Your task to perform on an android device: Open Reddit.com Image 0: 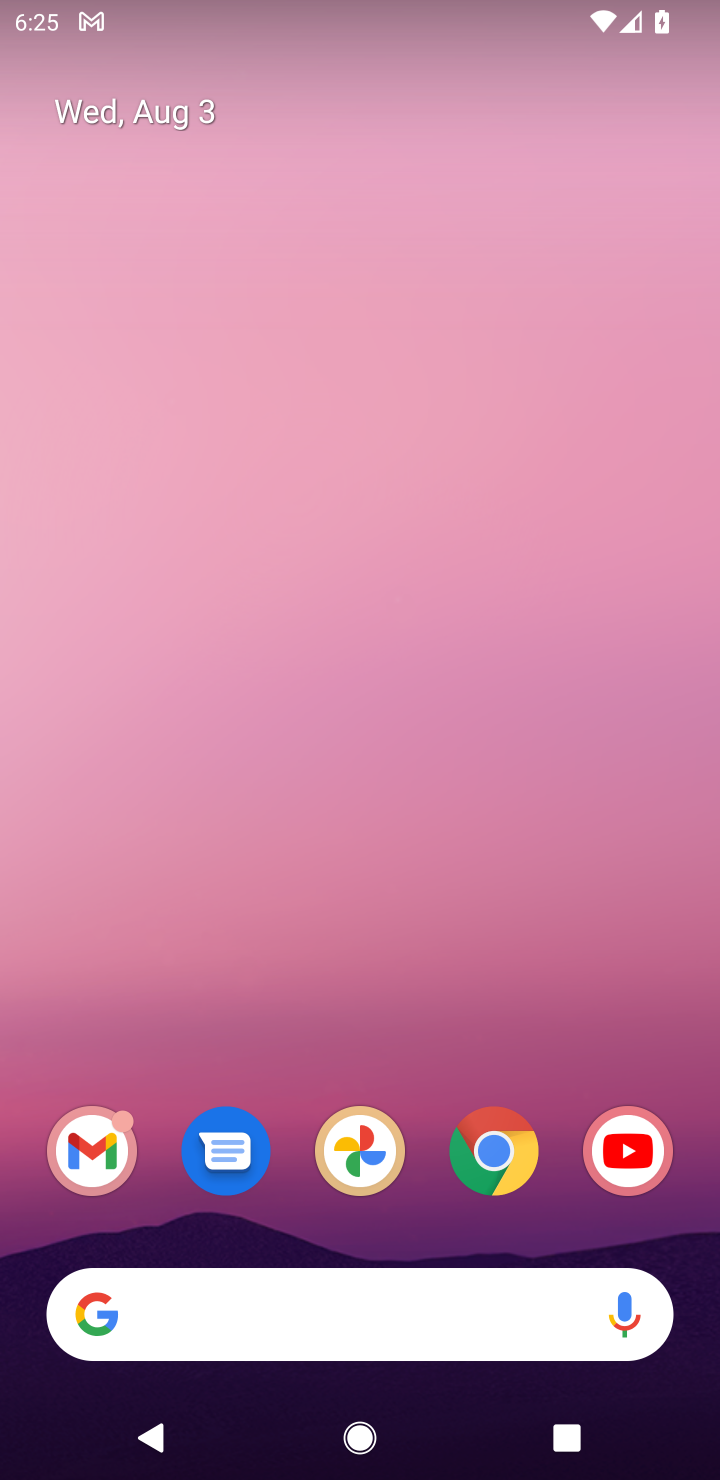
Step 0: click (519, 1166)
Your task to perform on an android device: Open Reddit.com Image 1: 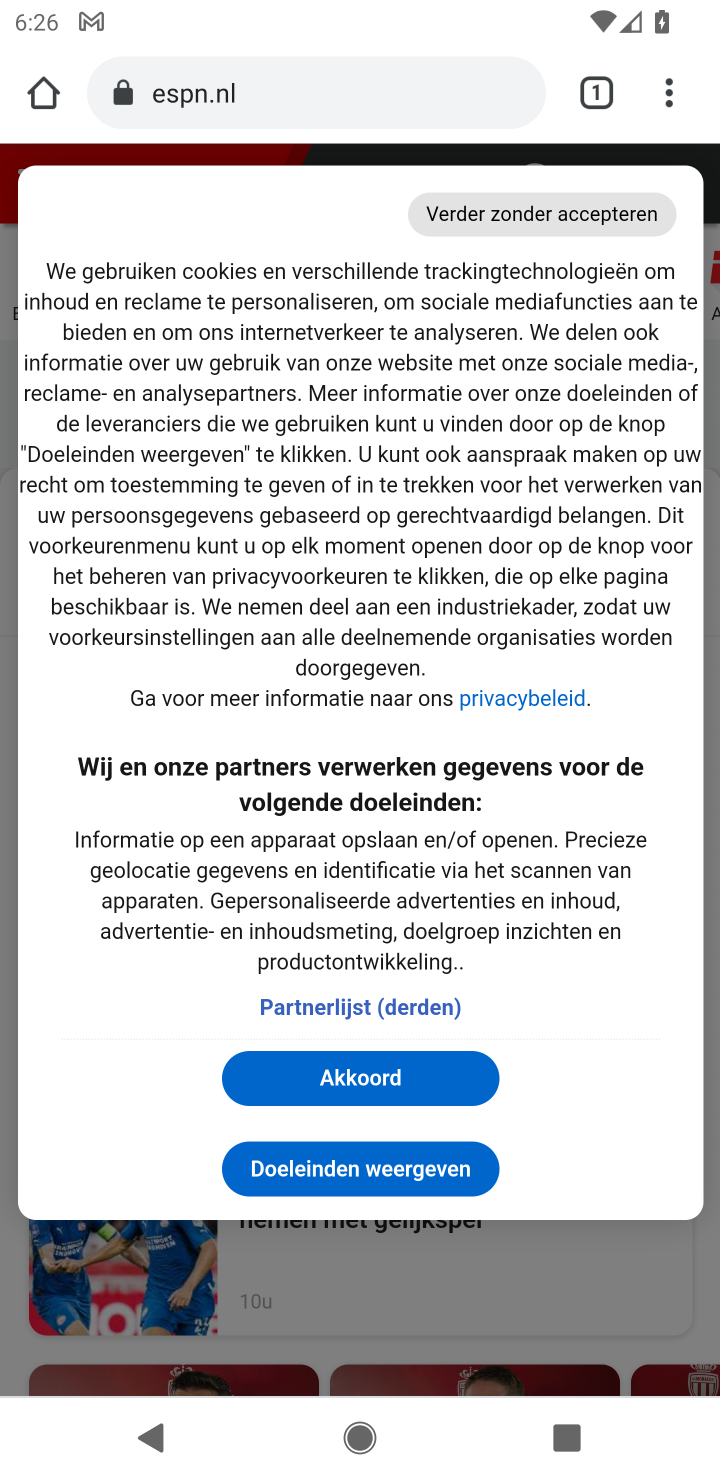
Step 1: click (572, 93)
Your task to perform on an android device: Open Reddit.com Image 2: 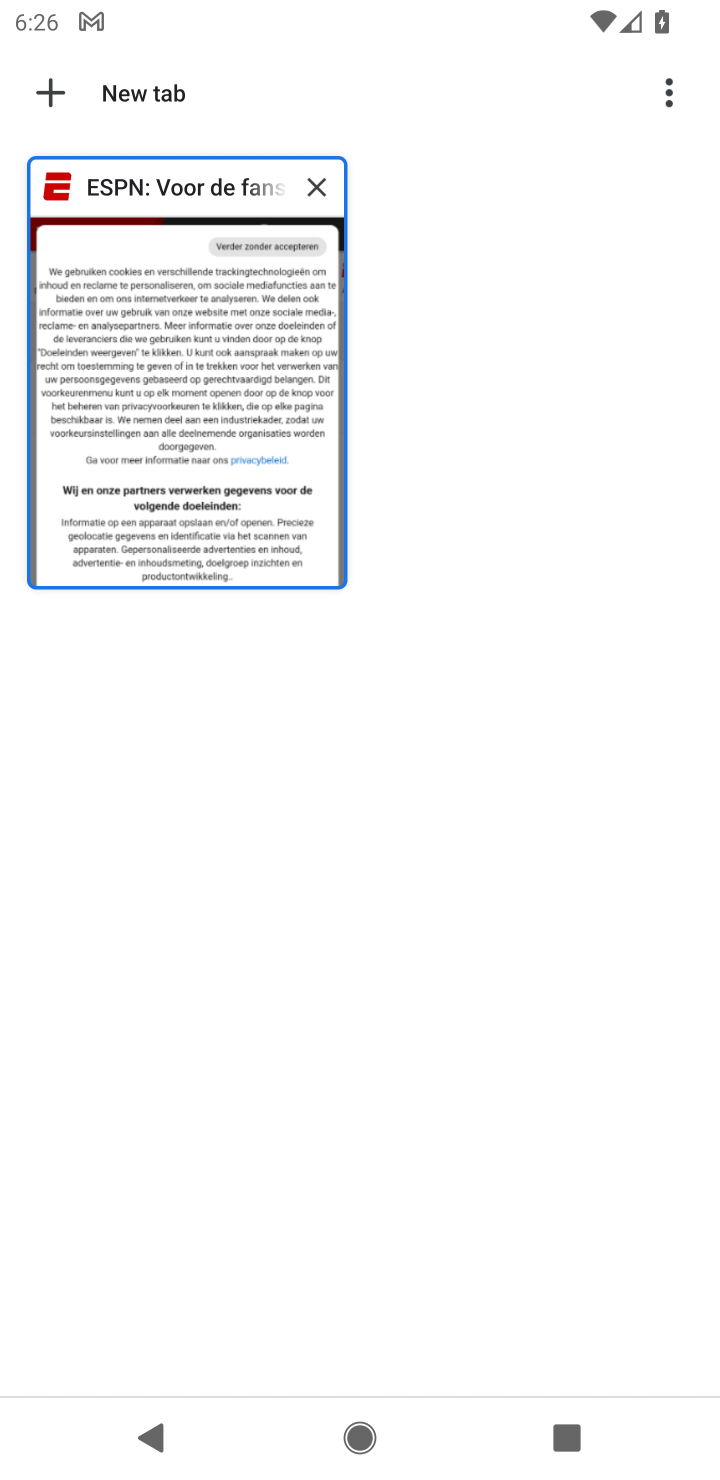
Step 2: click (313, 183)
Your task to perform on an android device: Open Reddit.com Image 3: 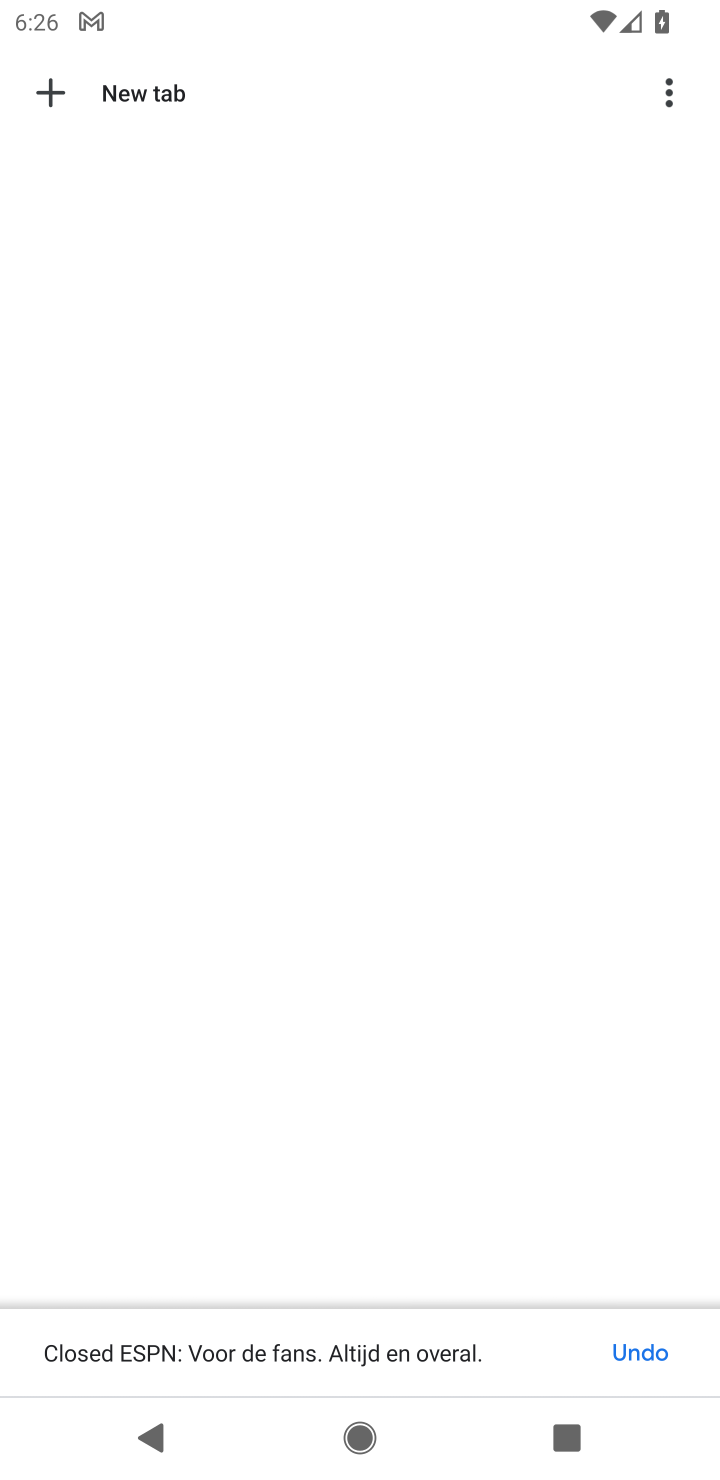
Step 3: click (100, 84)
Your task to perform on an android device: Open Reddit.com Image 4: 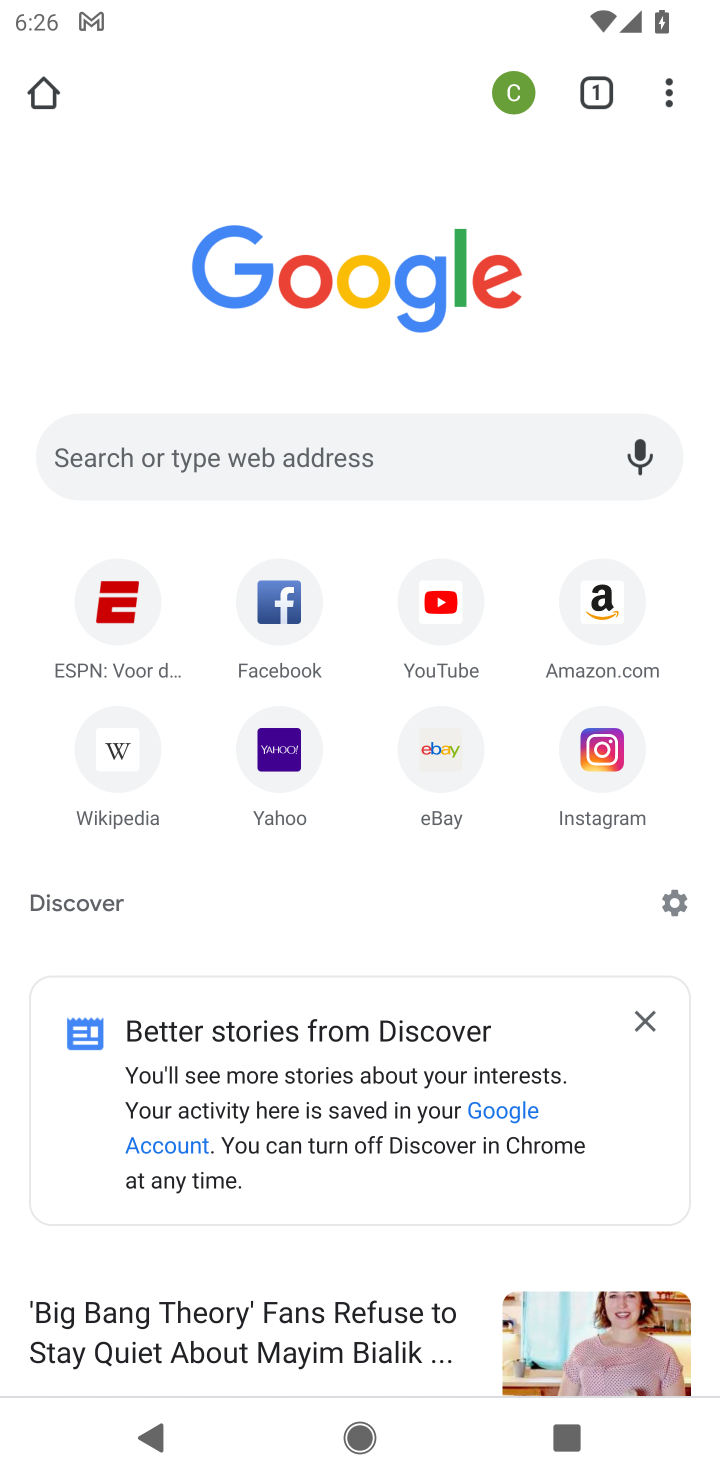
Step 4: click (431, 467)
Your task to perform on an android device: Open Reddit.com Image 5: 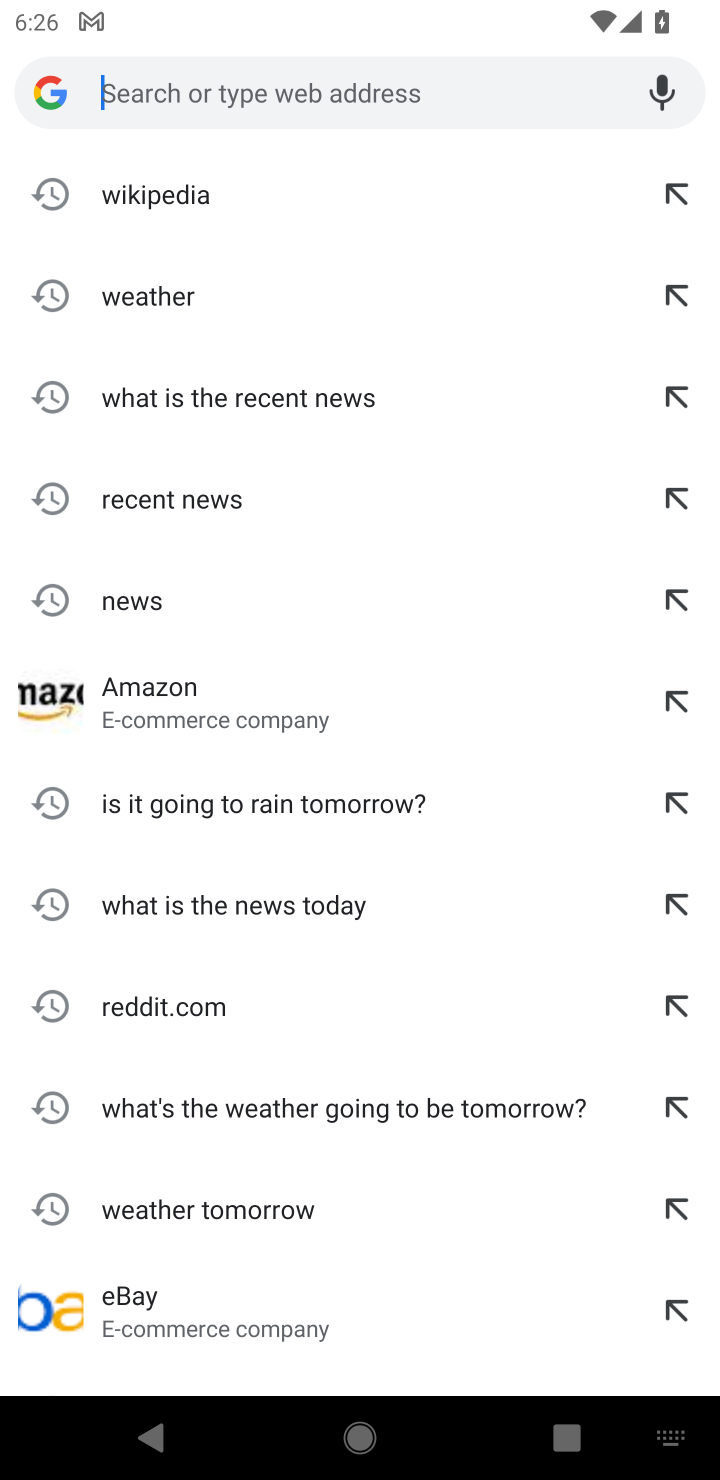
Step 5: type "reddit.com"
Your task to perform on an android device: Open Reddit.com Image 6: 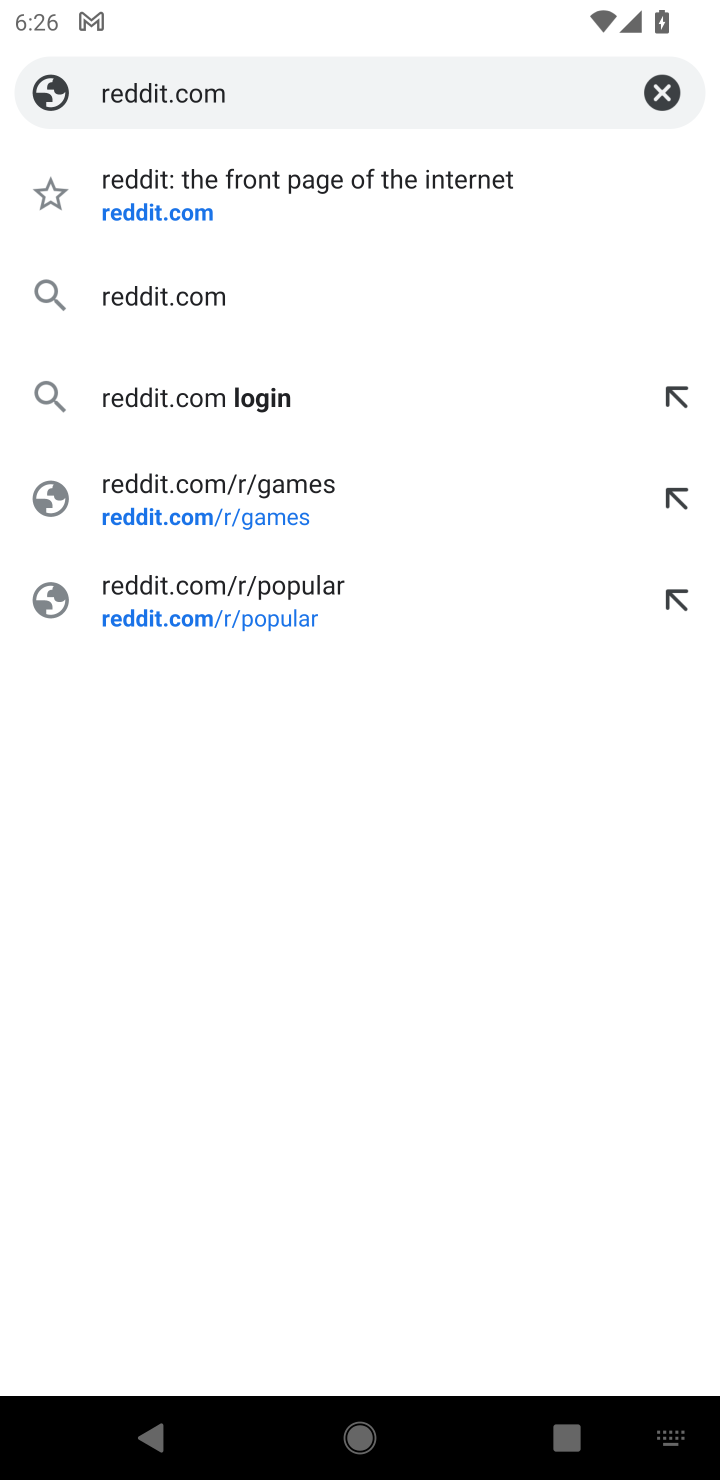
Step 6: click (259, 184)
Your task to perform on an android device: Open Reddit.com Image 7: 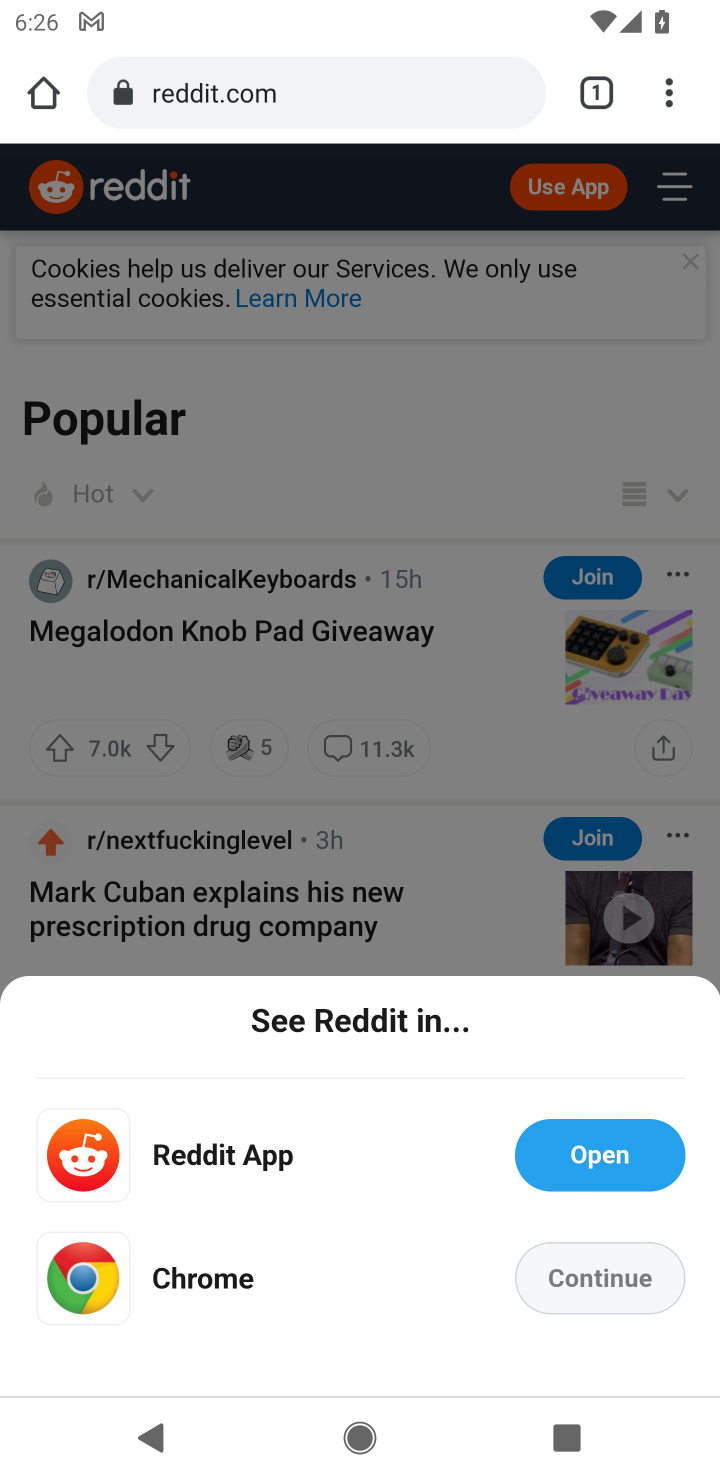
Step 7: click (630, 1297)
Your task to perform on an android device: Open Reddit.com Image 8: 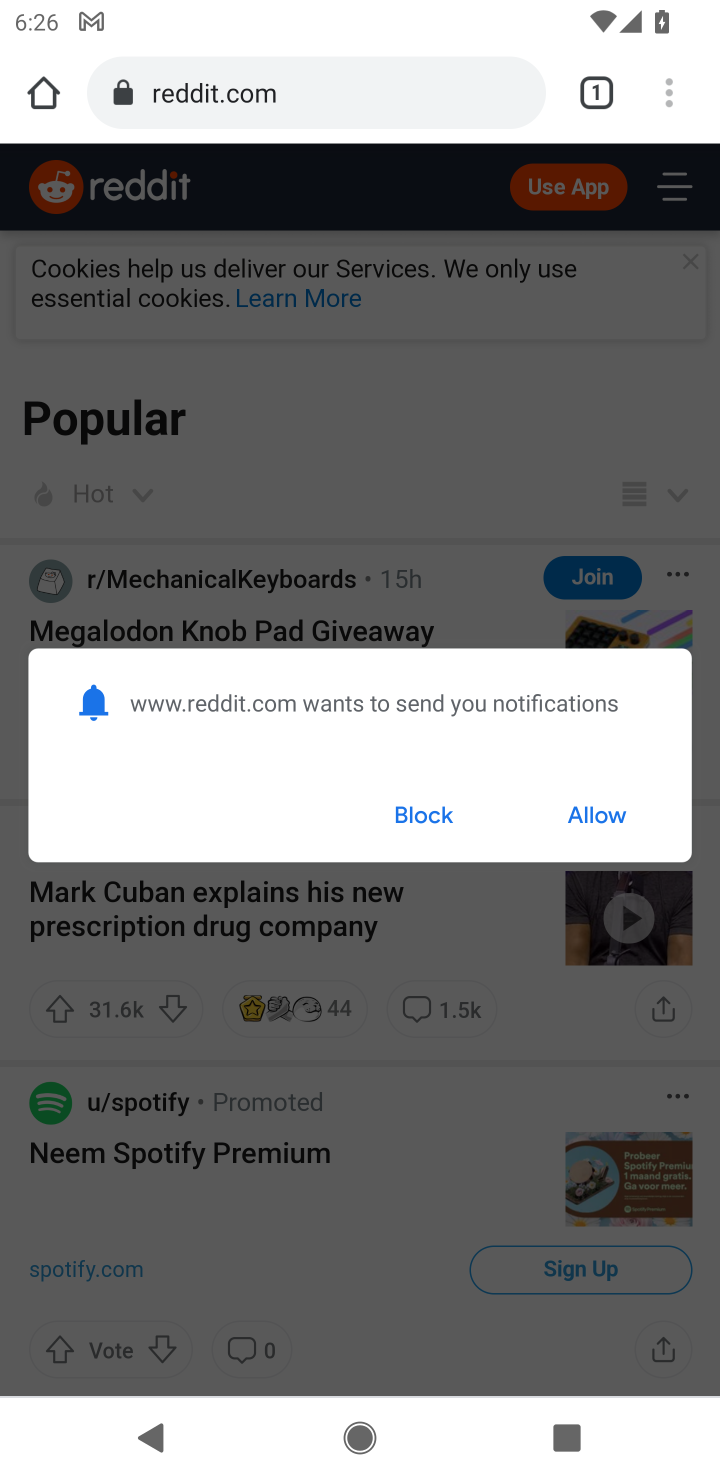
Step 8: click (407, 820)
Your task to perform on an android device: Open Reddit.com Image 9: 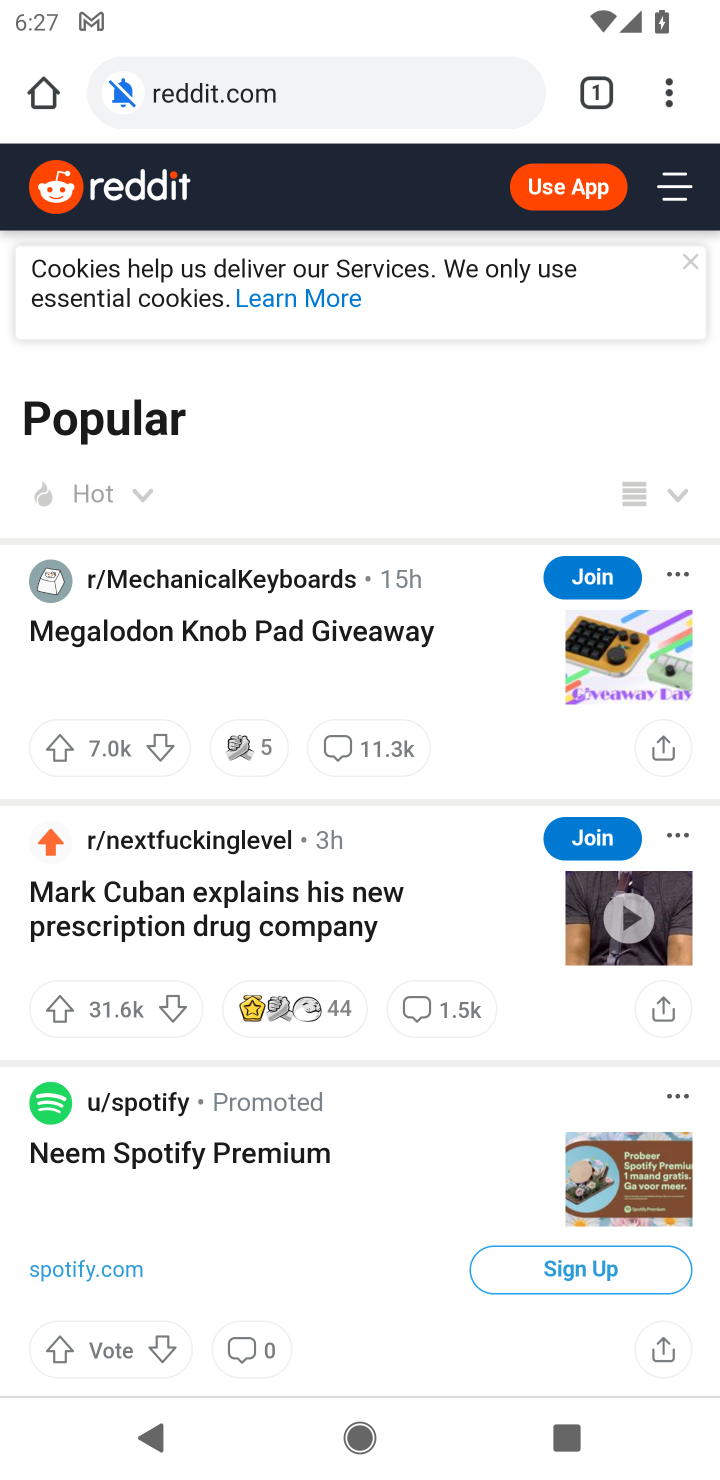
Step 9: task complete